Your task to perform on an android device: Open my contact list Image 0: 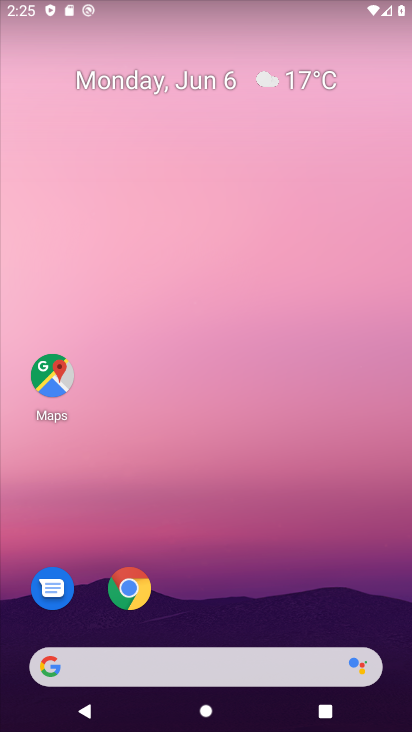
Step 0: drag from (219, 650) to (230, 288)
Your task to perform on an android device: Open my contact list Image 1: 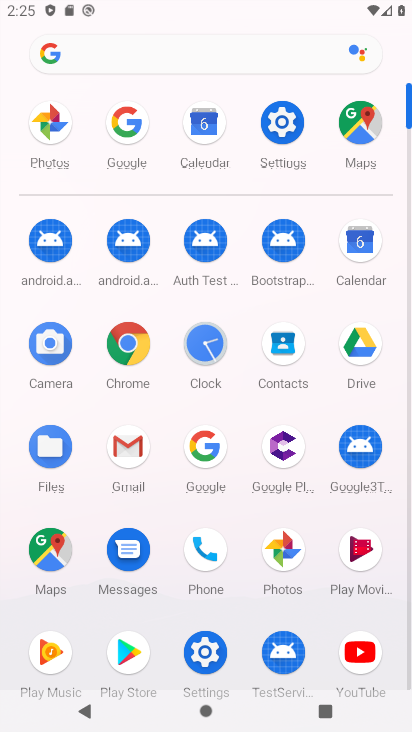
Step 1: click (278, 355)
Your task to perform on an android device: Open my contact list Image 2: 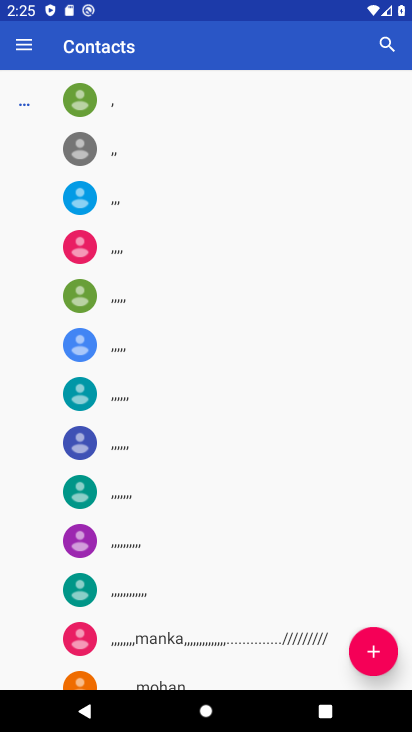
Step 2: task complete